Your task to perform on an android device: change alarm snooze length Image 0: 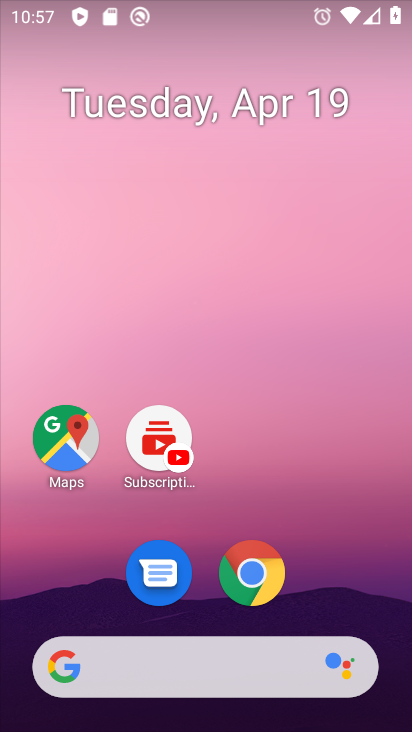
Step 0: drag from (330, 517) to (298, 102)
Your task to perform on an android device: change alarm snooze length Image 1: 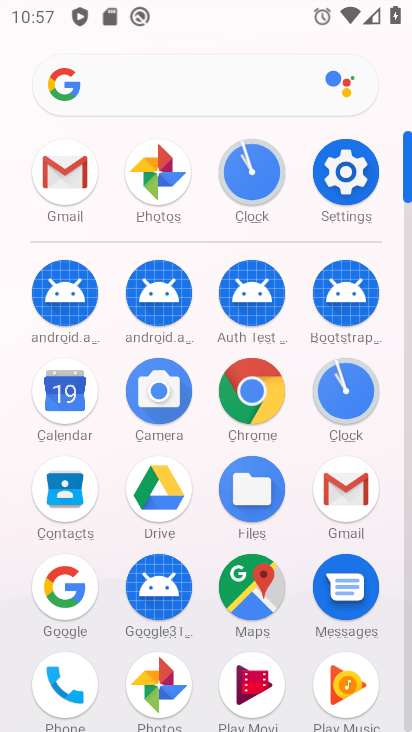
Step 1: click (253, 182)
Your task to perform on an android device: change alarm snooze length Image 2: 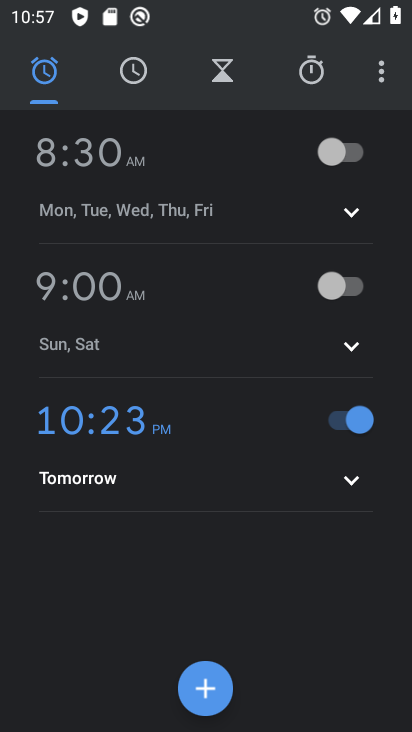
Step 2: click (382, 78)
Your task to perform on an android device: change alarm snooze length Image 3: 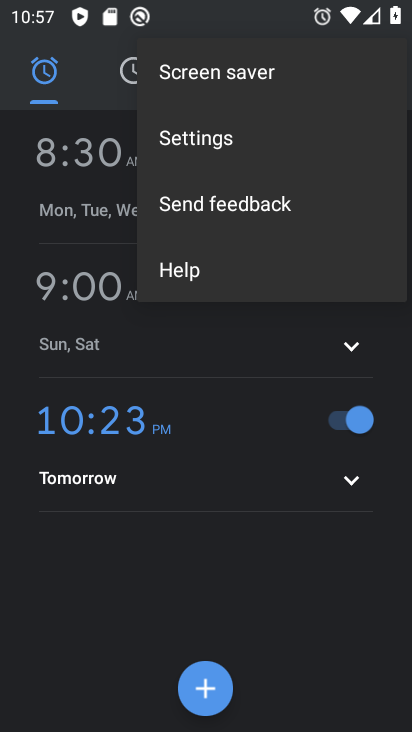
Step 3: click (211, 139)
Your task to perform on an android device: change alarm snooze length Image 4: 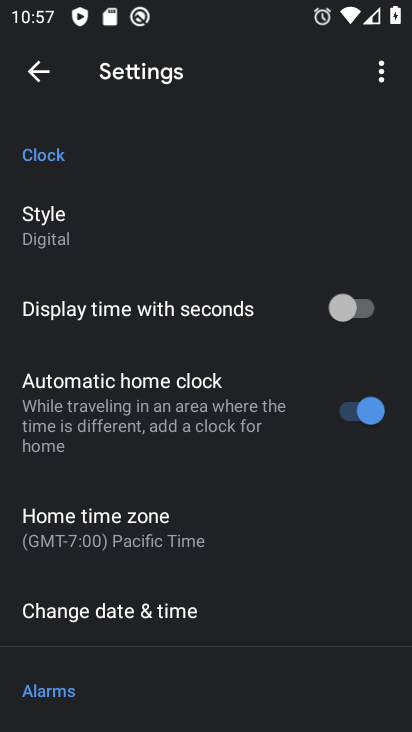
Step 4: drag from (183, 674) to (127, 293)
Your task to perform on an android device: change alarm snooze length Image 5: 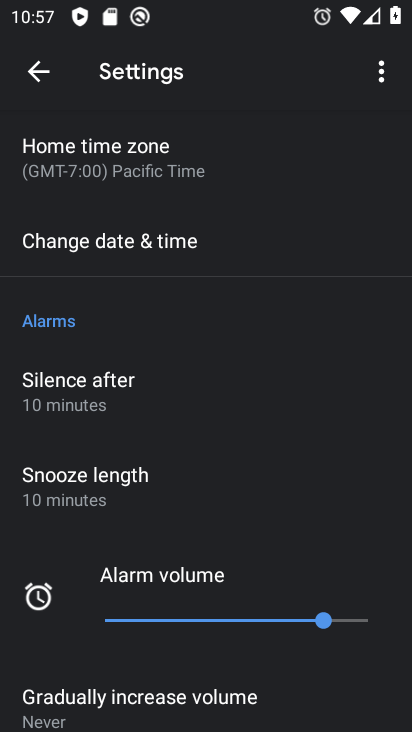
Step 5: click (104, 500)
Your task to perform on an android device: change alarm snooze length Image 6: 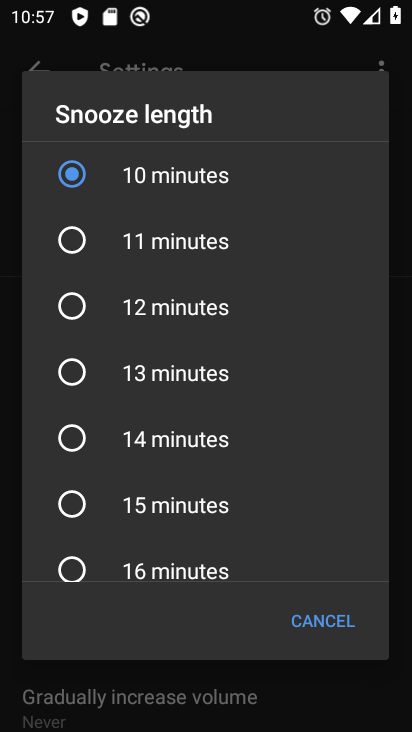
Step 6: click (66, 434)
Your task to perform on an android device: change alarm snooze length Image 7: 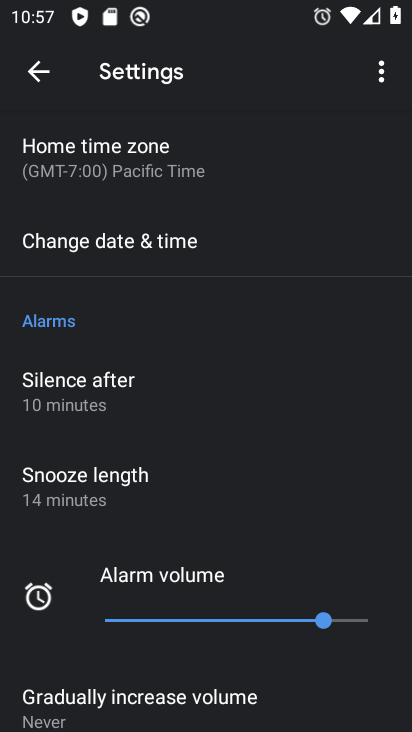
Step 7: task complete